Your task to perform on an android device: Search for Mexican restaurants on Maps Image 0: 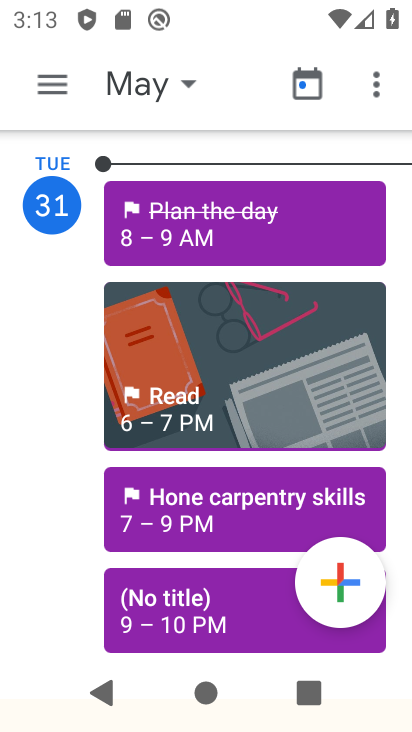
Step 0: press home button
Your task to perform on an android device: Search for Mexican restaurants on Maps Image 1: 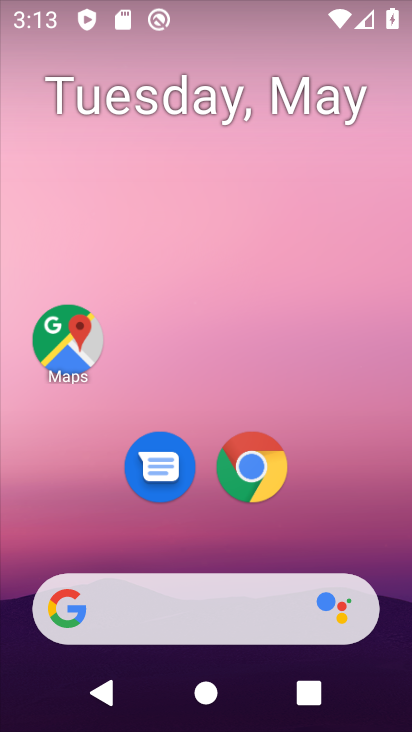
Step 1: click (55, 334)
Your task to perform on an android device: Search for Mexican restaurants on Maps Image 2: 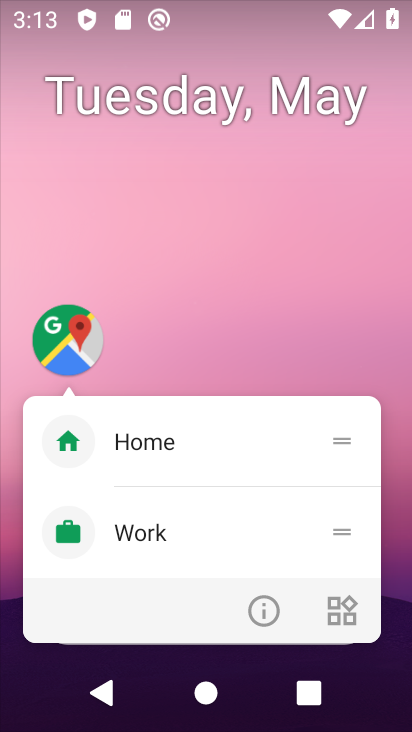
Step 2: click (61, 317)
Your task to perform on an android device: Search for Mexican restaurants on Maps Image 3: 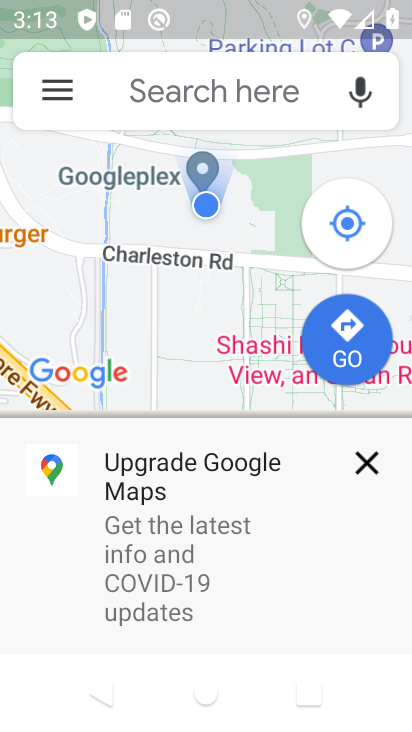
Step 3: click (355, 454)
Your task to perform on an android device: Search for Mexican restaurants on Maps Image 4: 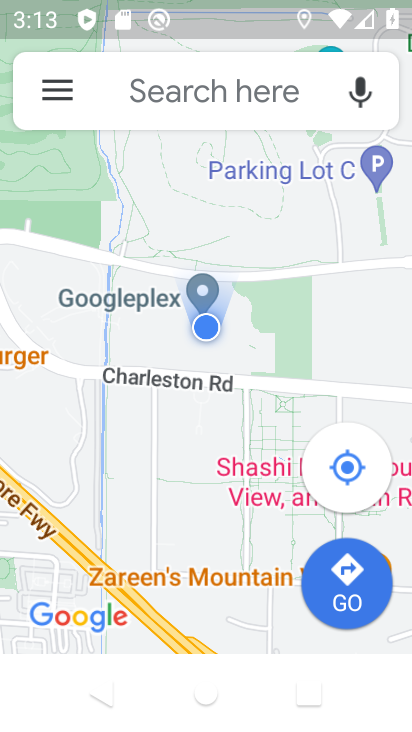
Step 4: click (260, 90)
Your task to perform on an android device: Search for Mexican restaurants on Maps Image 5: 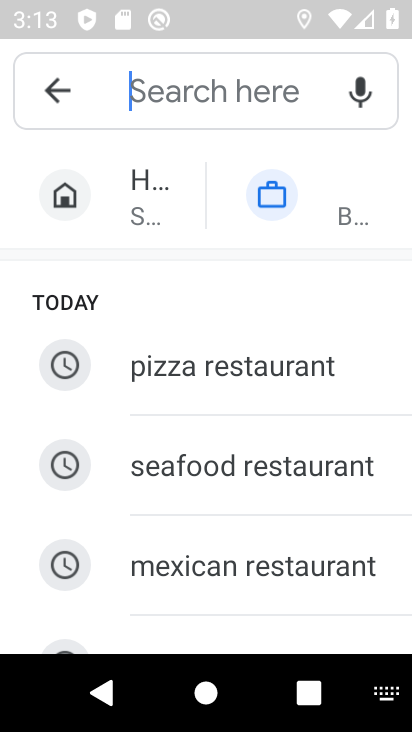
Step 5: type "Mexican restaurants"
Your task to perform on an android device: Search for Mexican restaurants on Maps Image 6: 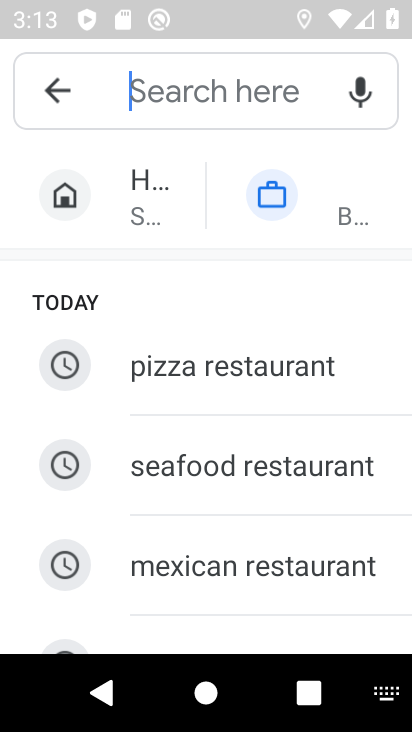
Step 6: click (262, 555)
Your task to perform on an android device: Search for Mexican restaurants on Maps Image 7: 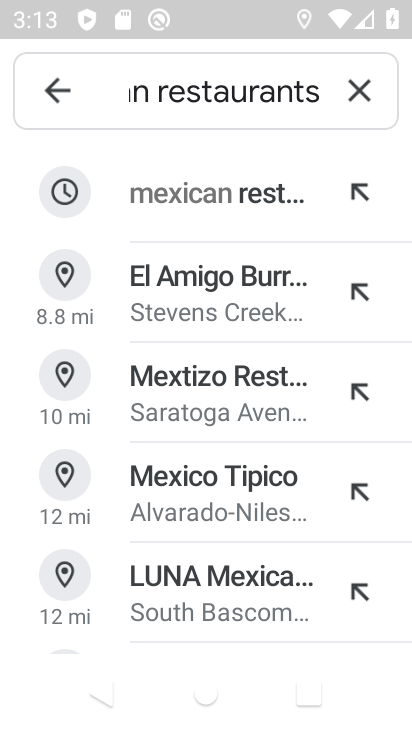
Step 7: click (219, 192)
Your task to perform on an android device: Search for Mexican restaurants on Maps Image 8: 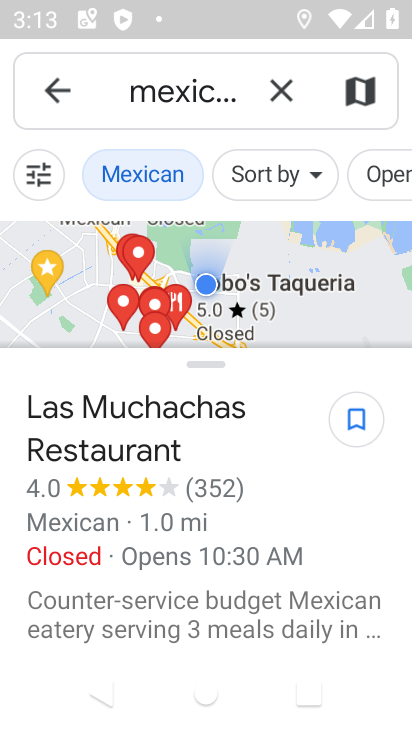
Step 8: task complete